Your task to perform on an android device: manage bookmarks in the chrome app Image 0: 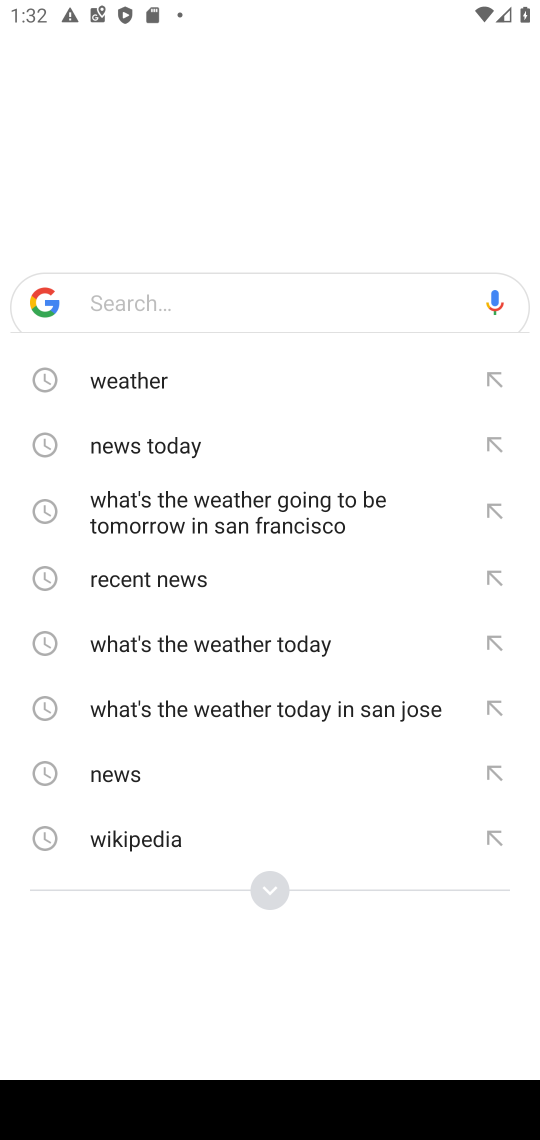
Step 0: press home button
Your task to perform on an android device: manage bookmarks in the chrome app Image 1: 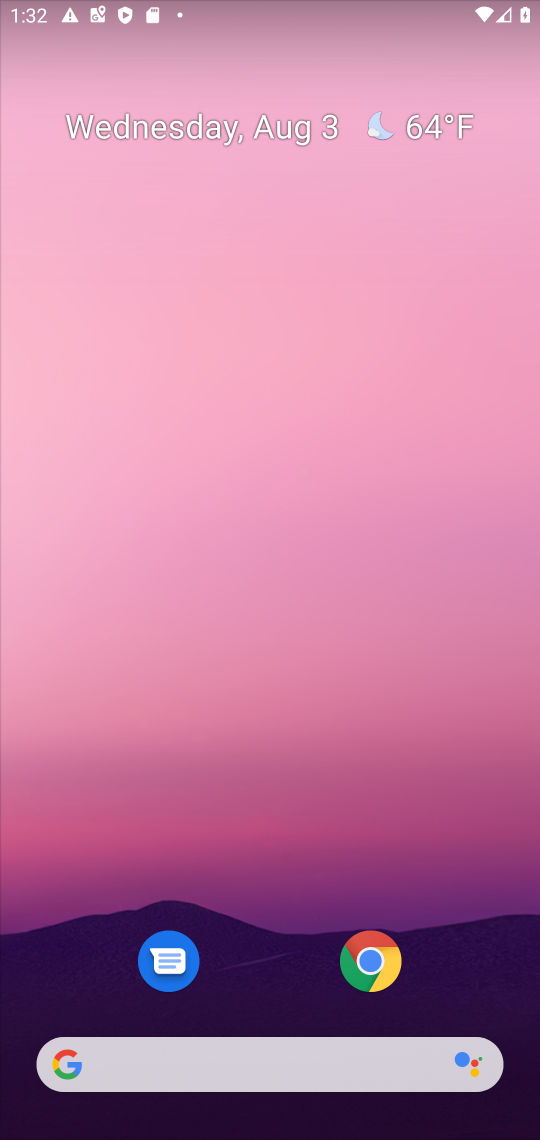
Step 1: click (370, 969)
Your task to perform on an android device: manage bookmarks in the chrome app Image 2: 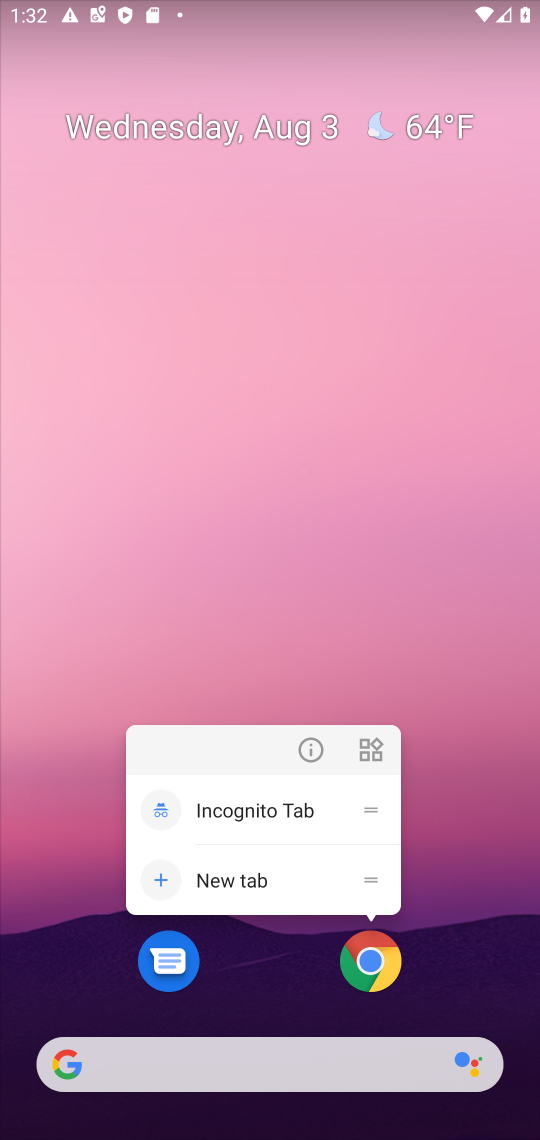
Step 2: click (370, 969)
Your task to perform on an android device: manage bookmarks in the chrome app Image 3: 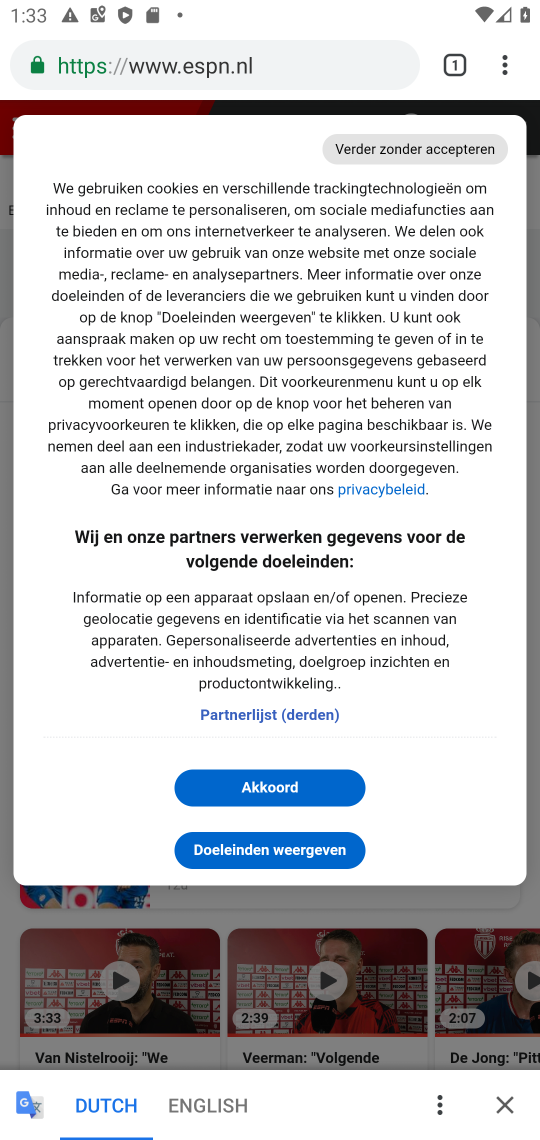
Step 3: drag from (504, 62) to (347, 251)
Your task to perform on an android device: manage bookmarks in the chrome app Image 4: 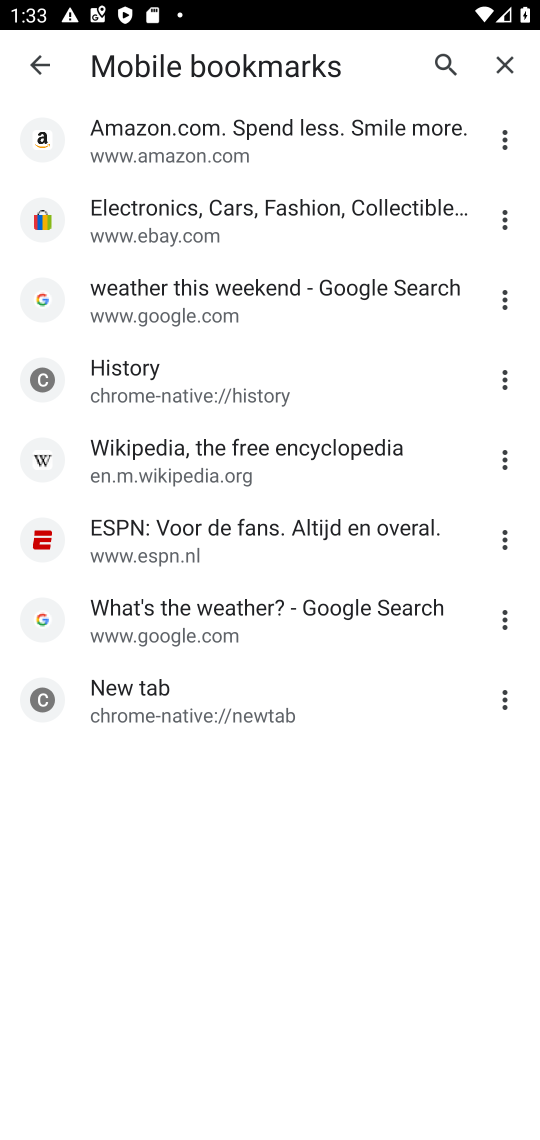
Step 4: click (506, 306)
Your task to perform on an android device: manage bookmarks in the chrome app Image 5: 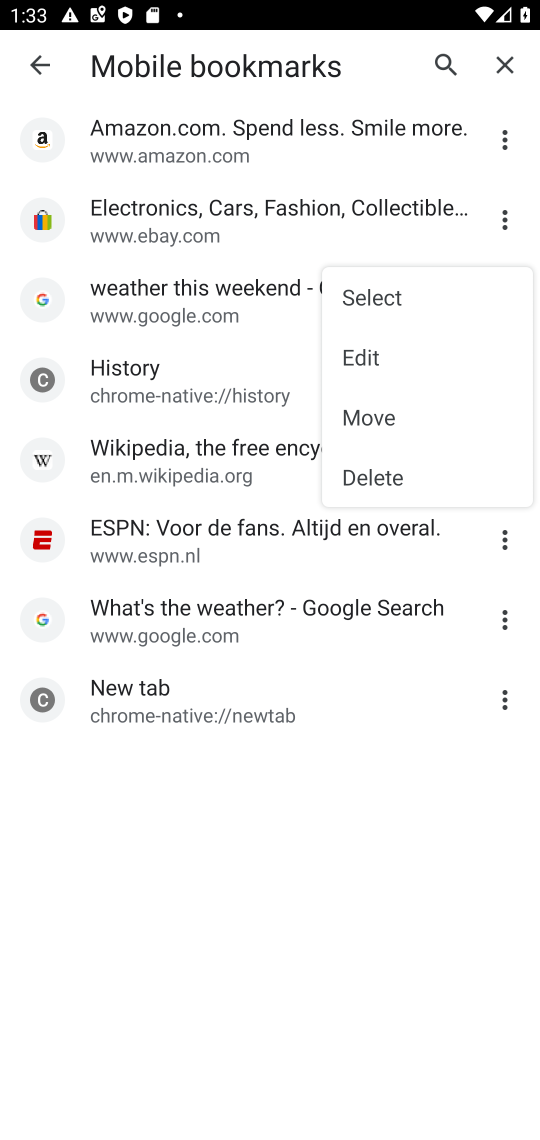
Step 5: click (354, 417)
Your task to perform on an android device: manage bookmarks in the chrome app Image 6: 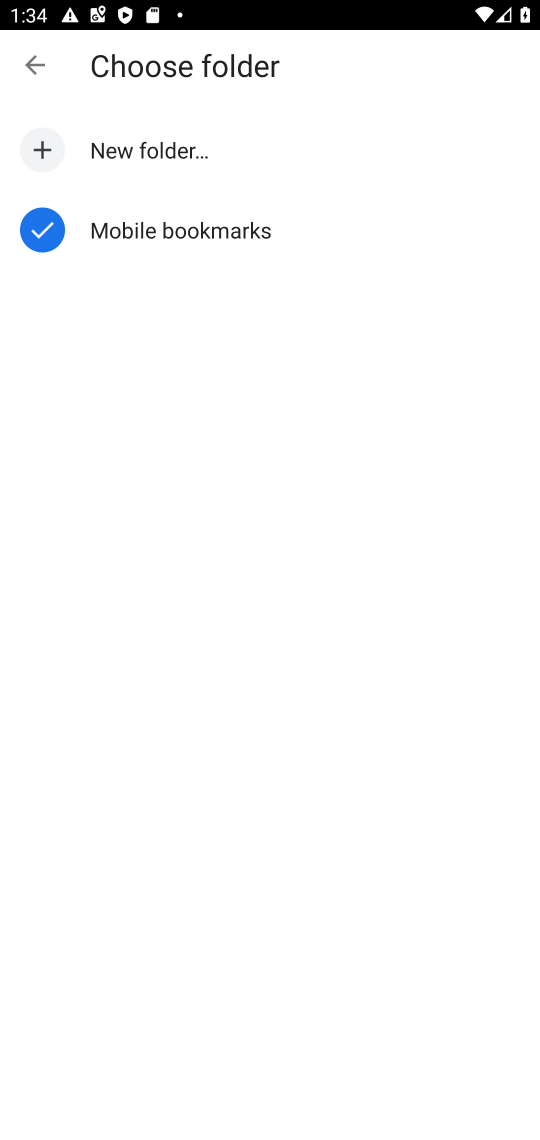
Step 6: click (157, 226)
Your task to perform on an android device: manage bookmarks in the chrome app Image 7: 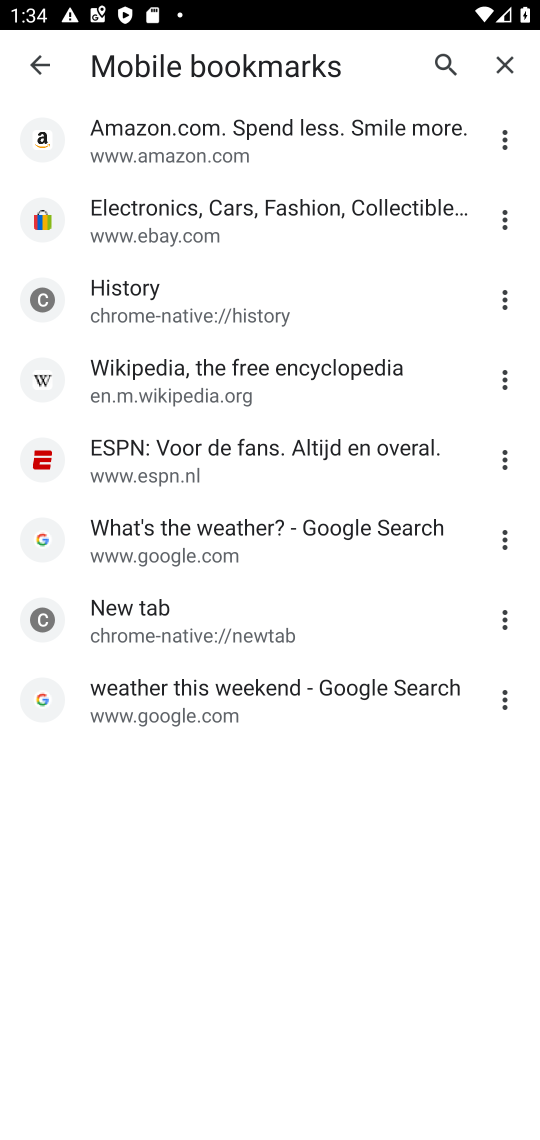
Step 7: click (507, 298)
Your task to perform on an android device: manage bookmarks in the chrome app Image 8: 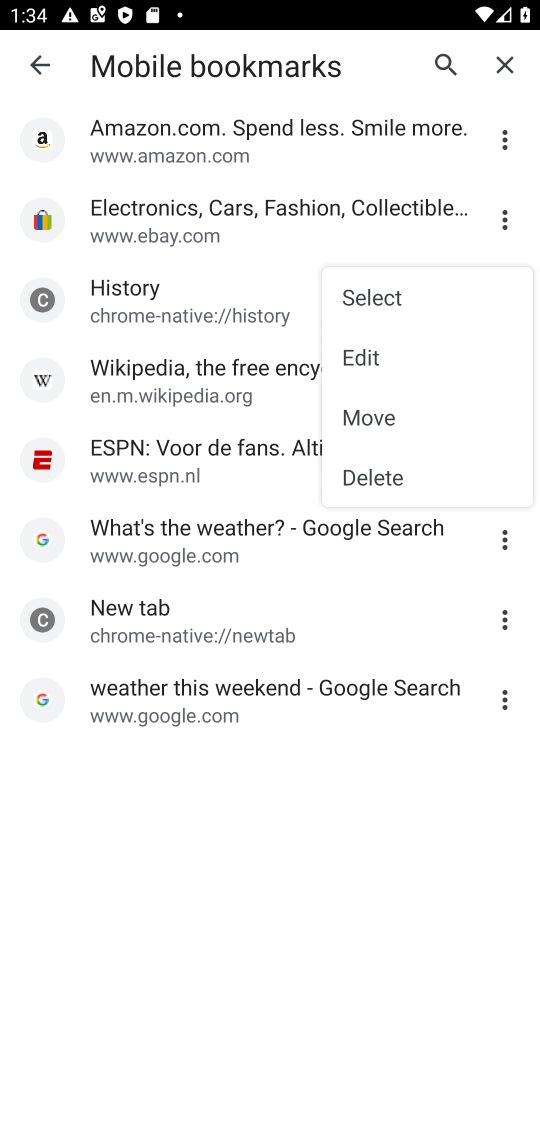
Step 8: click (355, 473)
Your task to perform on an android device: manage bookmarks in the chrome app Image 9: 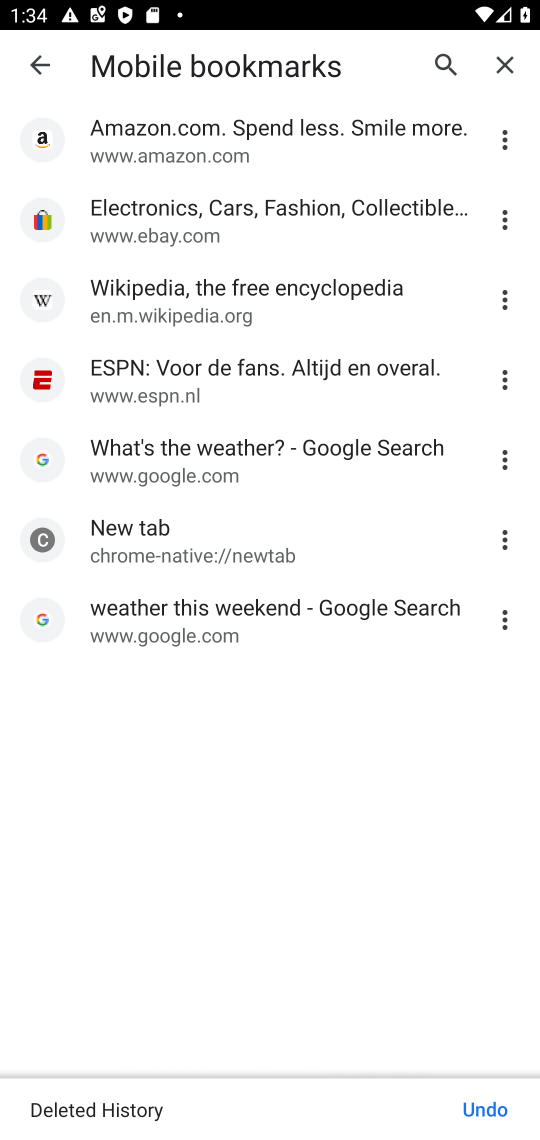
Step 9: task complete